Your task to perform on an android device: Open internet settings Image 0: 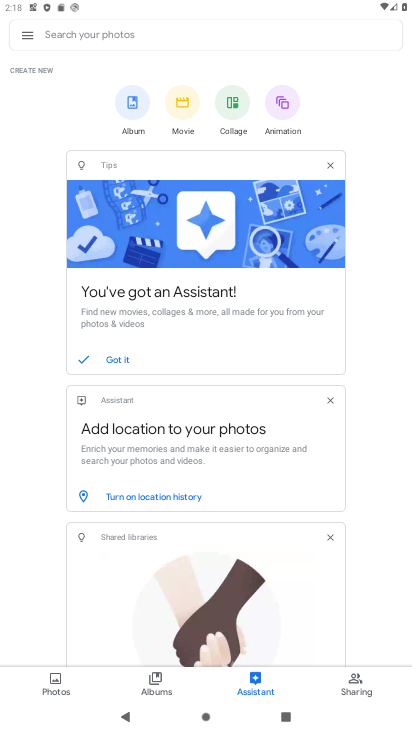
Step 0: press home button
Your task to perform on an android device: Open internet settings Image 1: 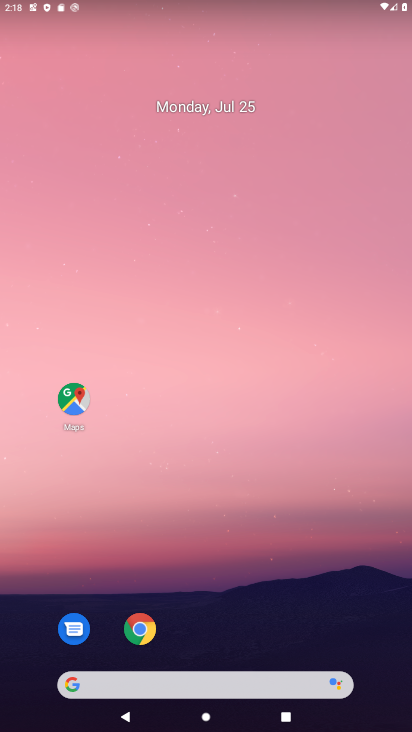
Step 1: drag from (248, 622) to (230, 172)
Your task to perform on an android device: Open internet settings Image 2: 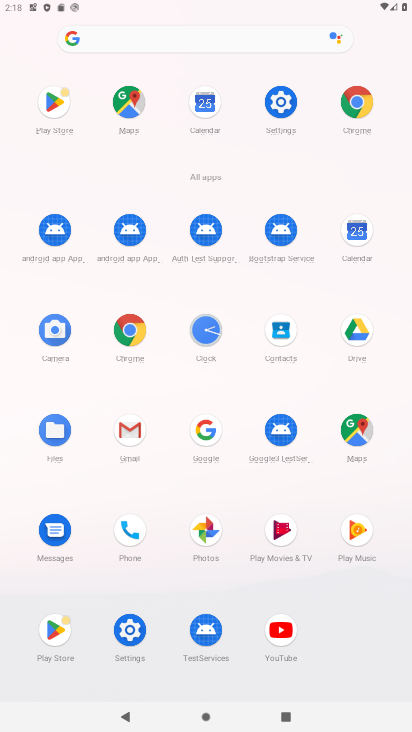
Step 2: click (137, 634)
Your task to perform on an android device: Open internet settings Image 3: 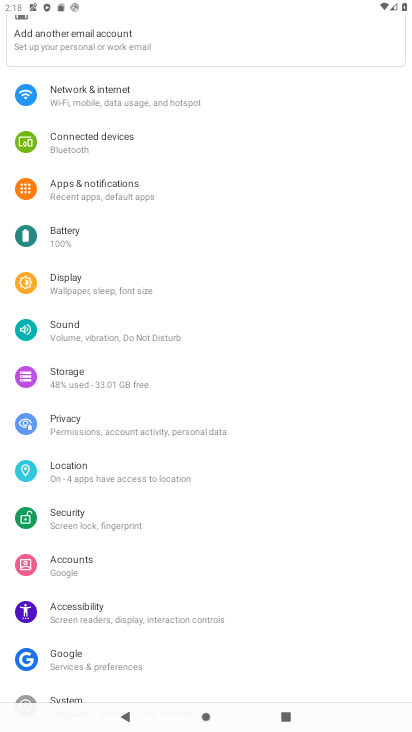
Step 3: click (109, 104)
Your task to perform on an android device: Open internet settings Image 4: 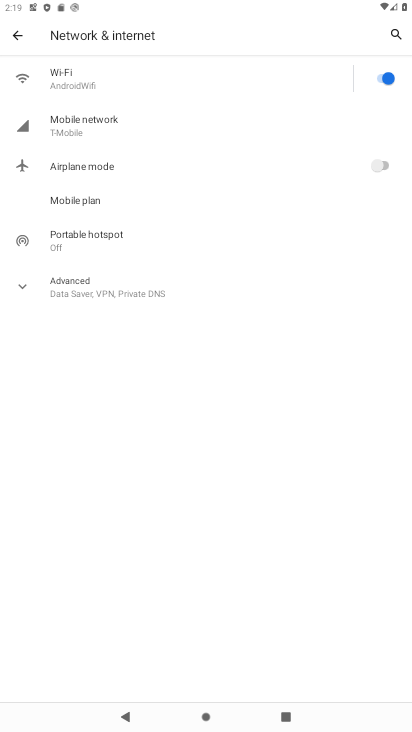
Step 4: task complete